Your task to perform on an android device: Open the phone app and click the voicemail tab. Image 0: 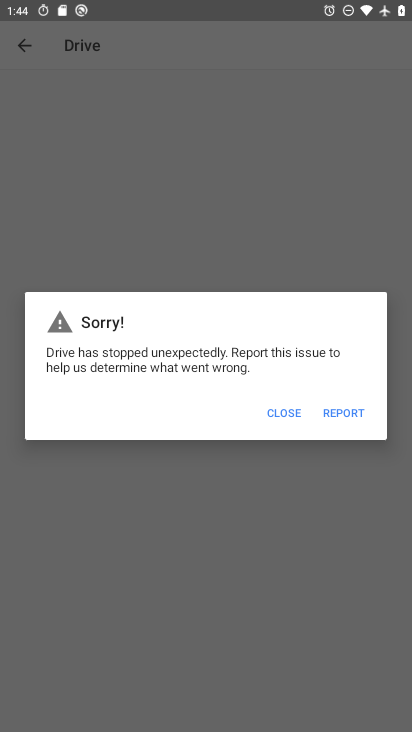
Step 0: press home button
Your task to perform on an android device: Open the phone app and click the voicemail tab. Image 1: 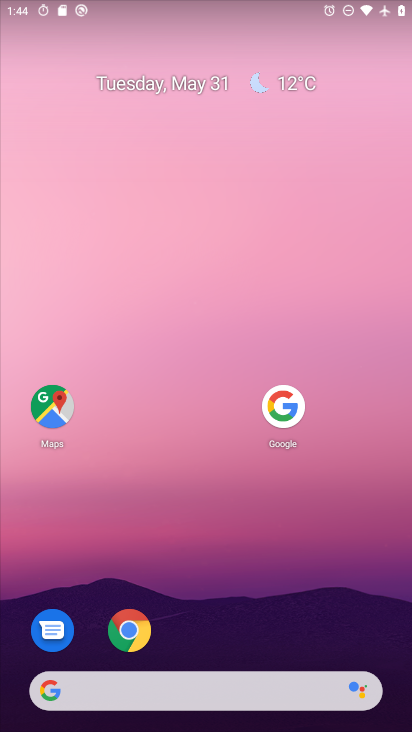
Step 1: drag from (163, 700) to (279, 138)
Your task to perform on an android device: Open the phone app and click the voicemail tab. Image 2: 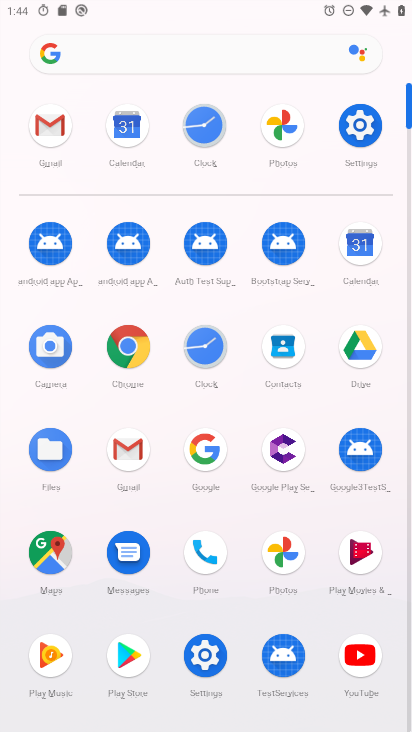
Step 2: click (206, 557)
Your task to perform on an android device: Open the phone app and click the voicemail tab. Image 3: 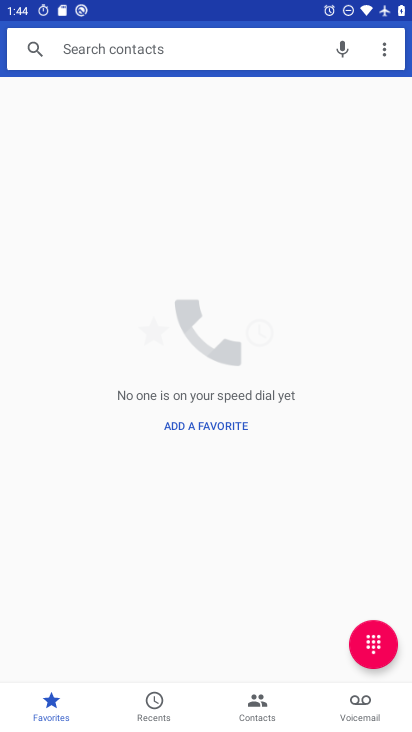
Step 3: click (360, 717)
Your task to perform on an android device: Open the phone app and click the voicemail tab. Image 4: 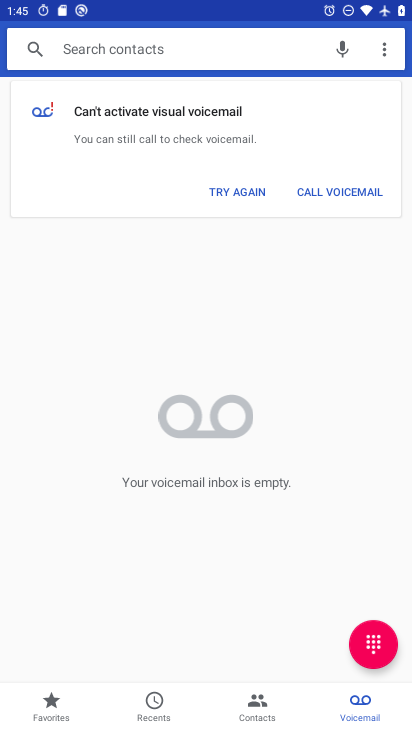
Step 4: task complete